Your task to perform on an android device: refresh tabs in the chrome app Image 0: 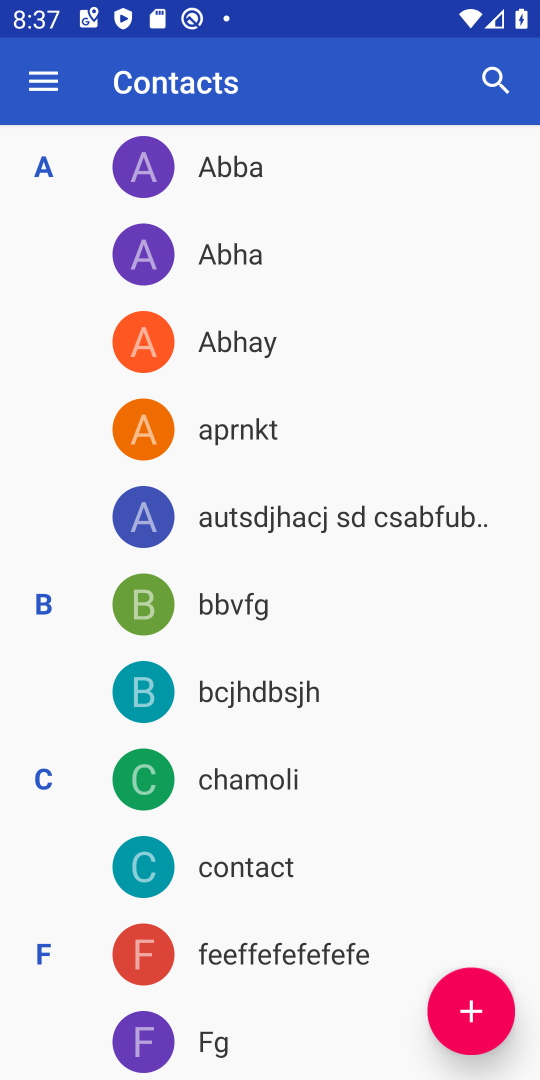
Step 0: press home button
Your task to perform on an android device: refresh tabs in the chrome app Image 1: 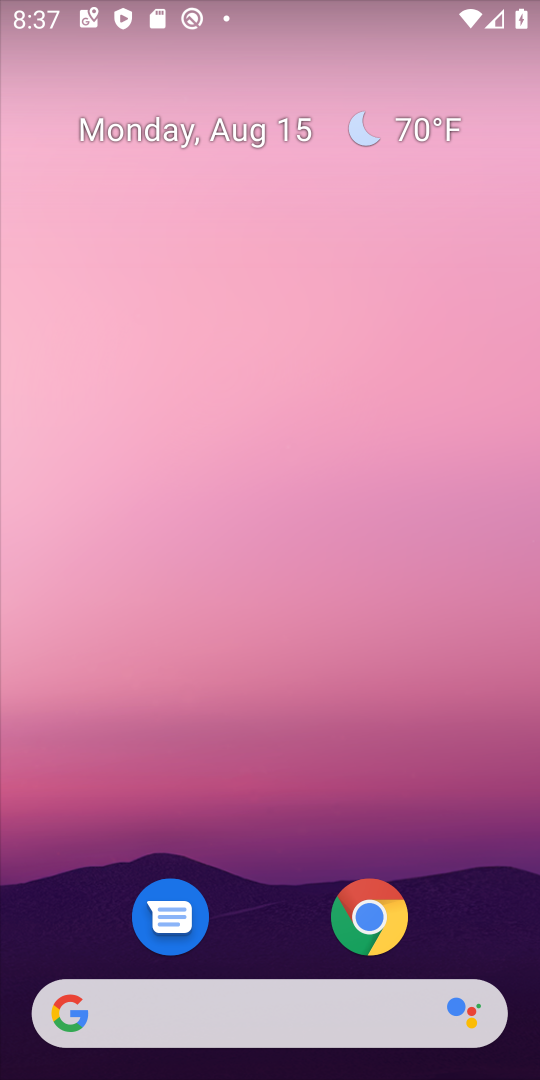
Step 1: click (359, 902)
Your task to perform on an android device: refresh tabs in the chrome app Image 2: 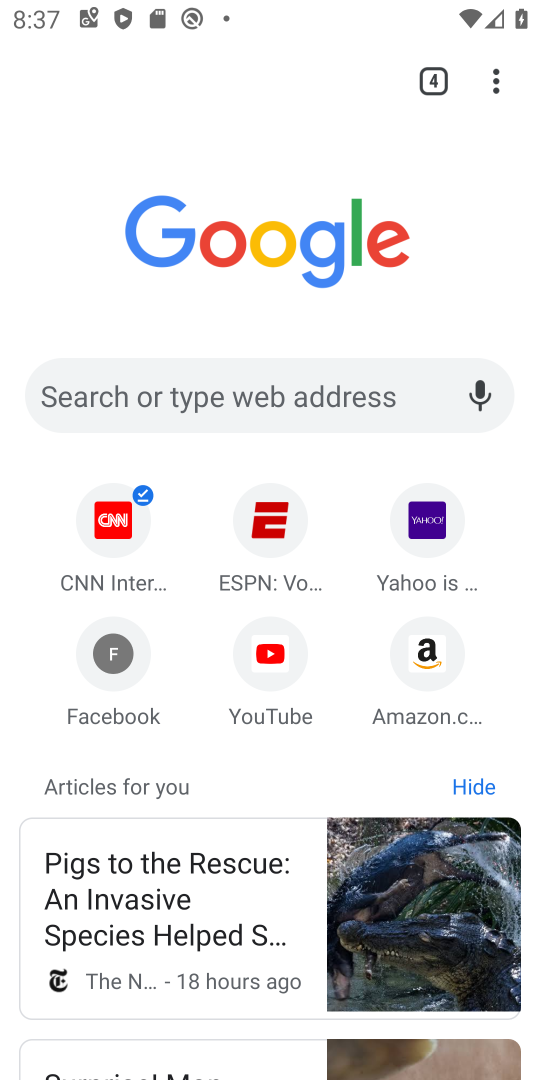
Step 2: click (497, 89)
Your task to perform on an android device: refresh tabs in the chrome app Image 3: 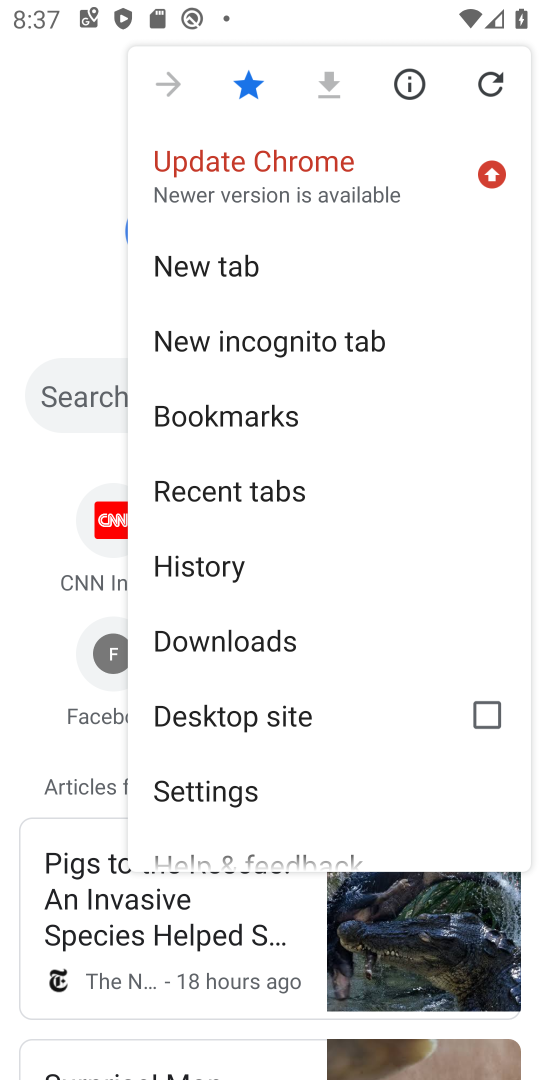
Step 3: click (490, 77)
Your task to perform on an android device: refresh tabs in the chrome app Image 4: 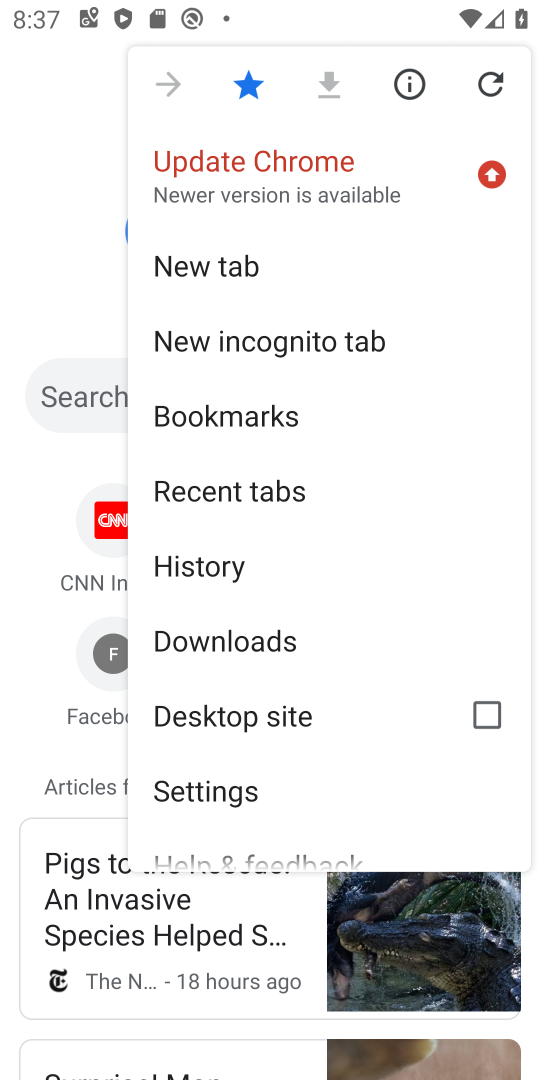
Step 4: click (490, 77)
Your task to perform on an android device: refresh tabs in the chrome app Image 5: 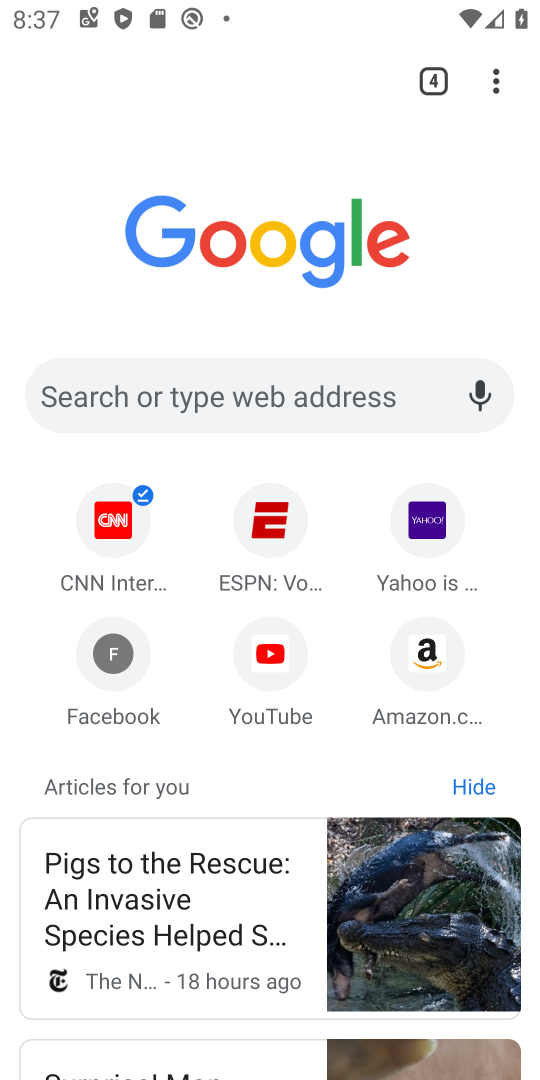
Step 5: task complete